Your task to perform on an android device: Go to calendar. Show me events next week Image 0: 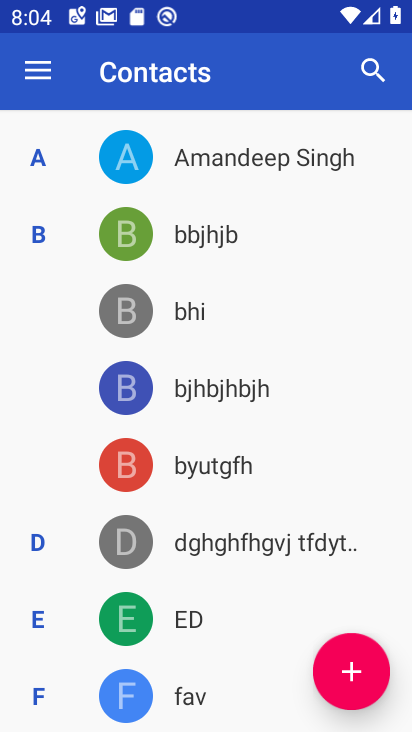
Step 0: press home button
Your task to perform on an android device: Go to calendar. Show me events next week Image 1: 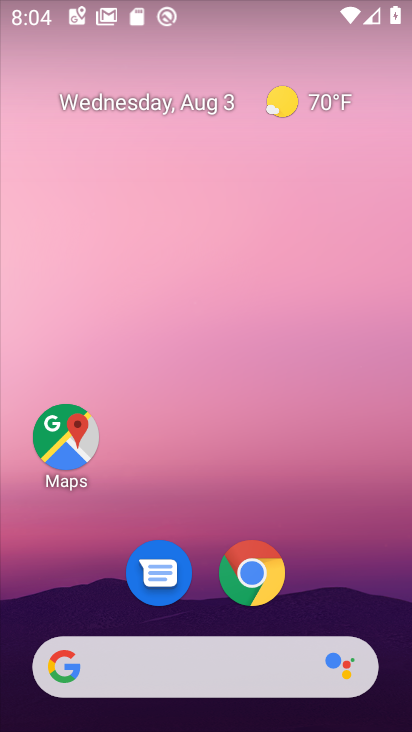
Step 1: drag from (359, 617) to (389, 16)
Your task to perform on an android device: Go to calendar. Show me events next week Image 2: 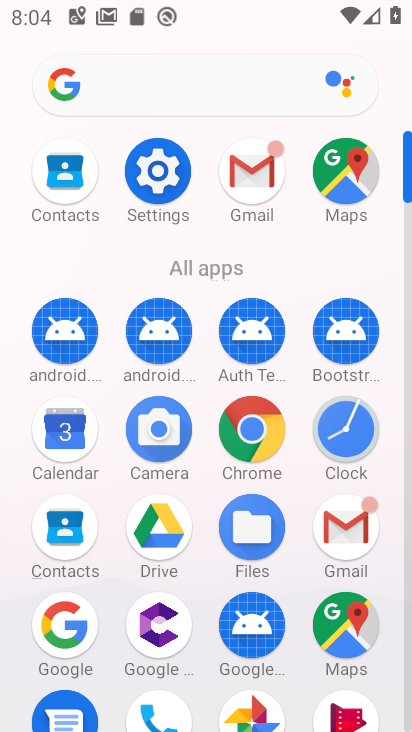
Step 2: click (58, 431)
Your task to perform on an android device: Go to calendar. Show me events next week Image 3: 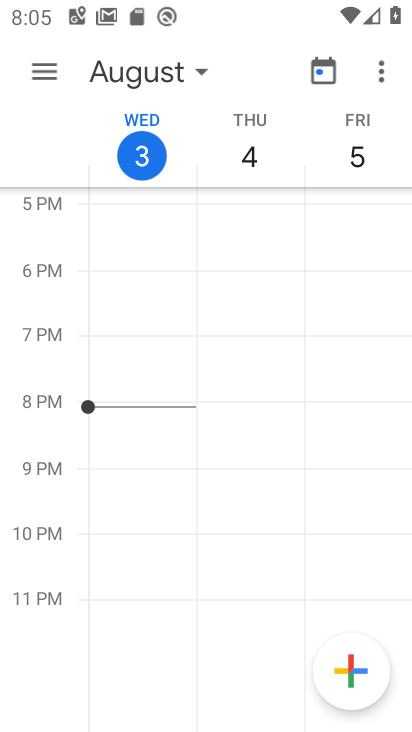
Step 3: click (46, 75)
Your task to perform on an android device: Go to calendar. Show me events next week Image 4: 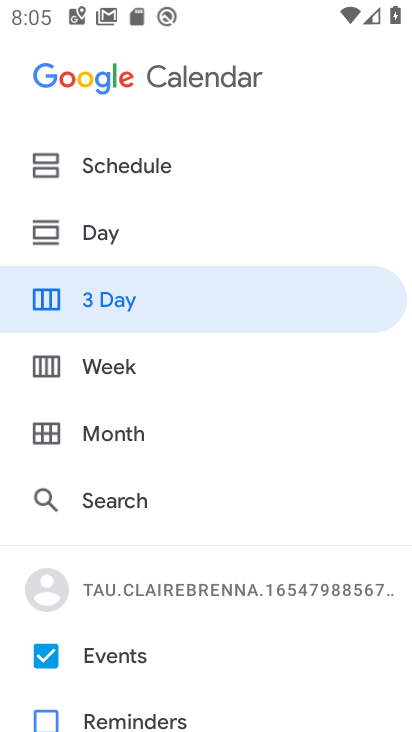
Step 4: click (57, 371)
Your task to perform on an android device: Go to calendar. Show me events next week Image 5: 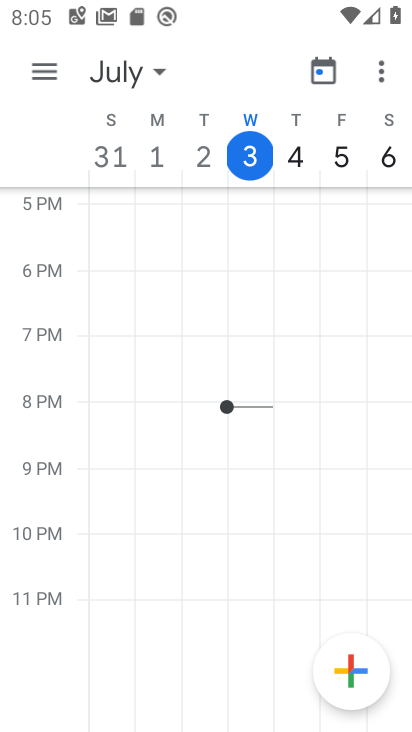
Step 5: drag from (327, 483) to (12, 385)
Your task to perform on an android device: Go to calendar. Show me events next week Image 6: 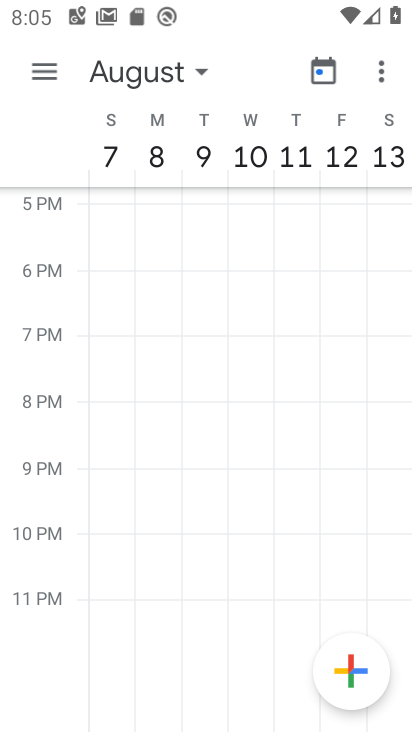
Step 6: click (320, 75)
Your task to perform on an android device: Go to calendar. Show me events next week Image 7: 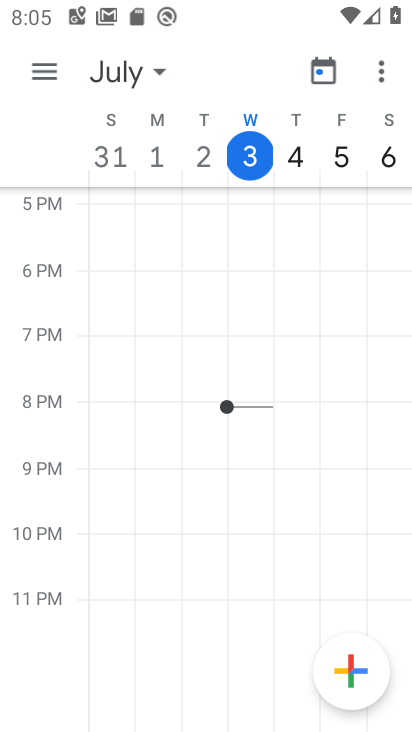
Step 7: task complete